Your task to perform on an android device: check storage Image 0: 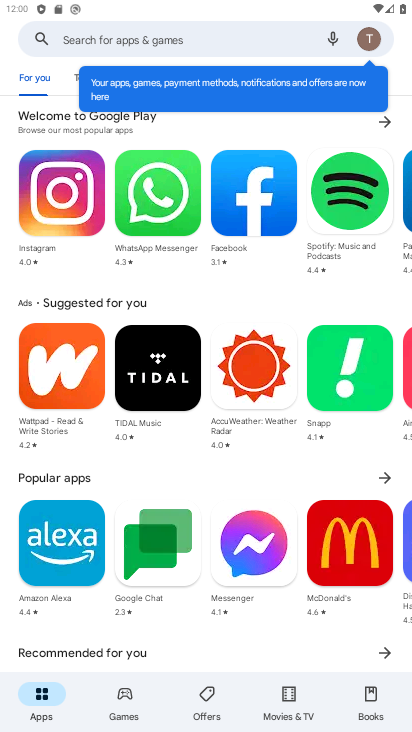
Step 0: press home button
Your task to perform on an android device: check storage Image 1: 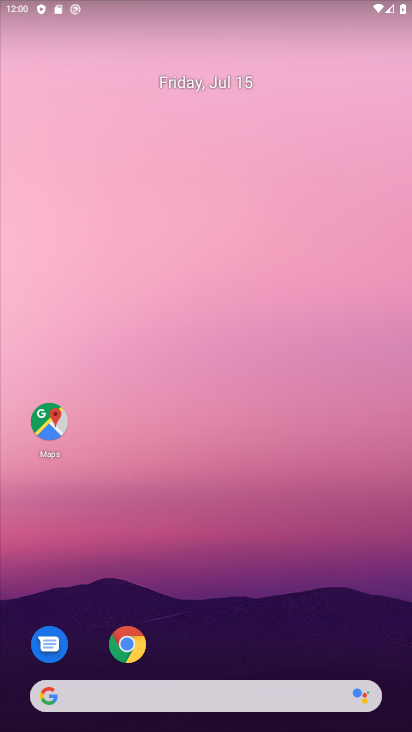
Step 1: drag from (238, 699) to (246, 6)
Your task to perform on an android device: check storage Image 2: 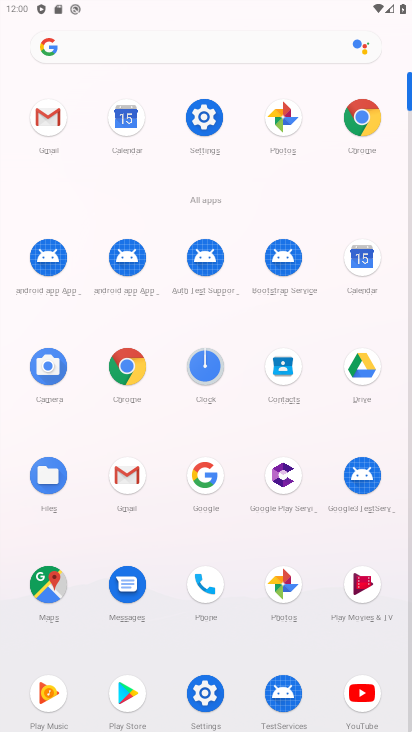
Step 2: click (199, 120)
Your task to perform on an android device: check storage Image 3: 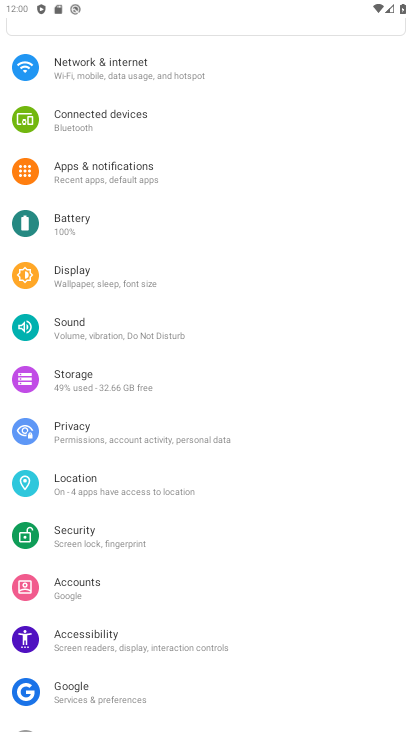
Step 3: click (60, 378)
Your task to perform on an android device: check storage Image 4: 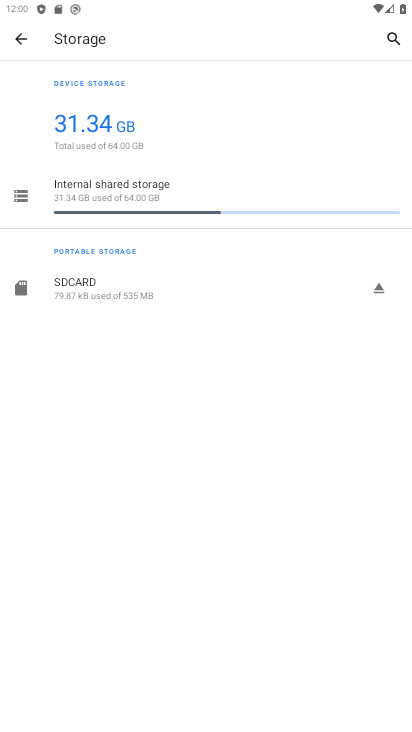
Step 4: task complete